Your task to perform on an android device: Open Google Chrome and click the shortcut for Amazon.com Image 0: 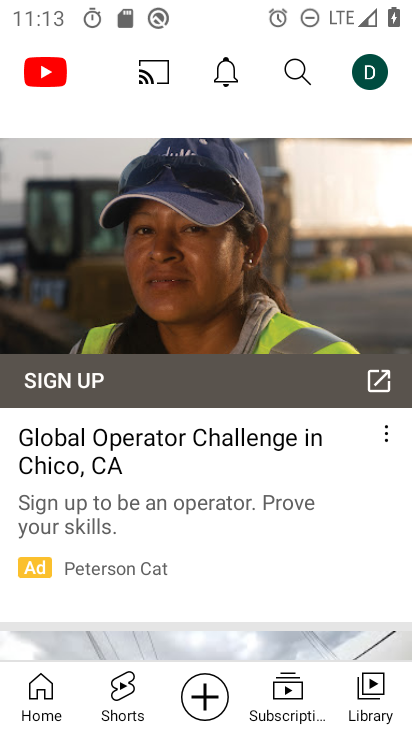
Step 0: press home button
Your task to perform on an android device: Open Google Chrome and click the shortcut for Amazon.com Image 1: 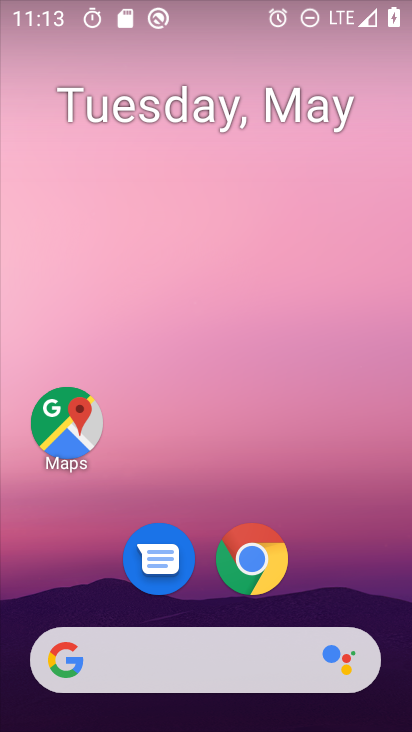
Step 1: click (259, 561)
Your task to perform on an android device: Open Google Chrome and click the shortcut for Amazon.com Image 2: 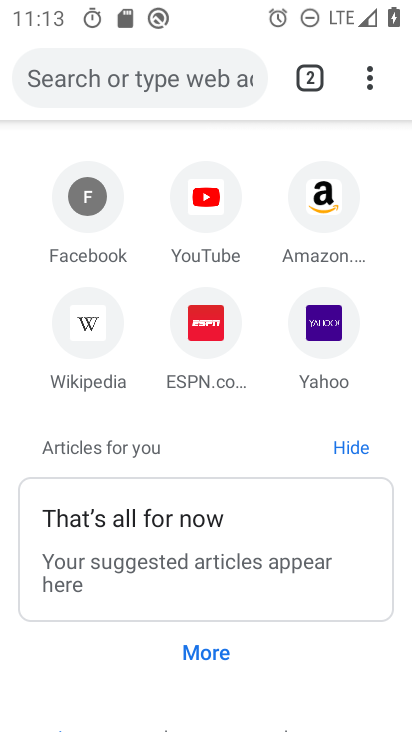
Step 2: click (327, 202)
Your task to perform on an android device: Open Google Chrome and click the shortcut for Amazon.com Image 3: 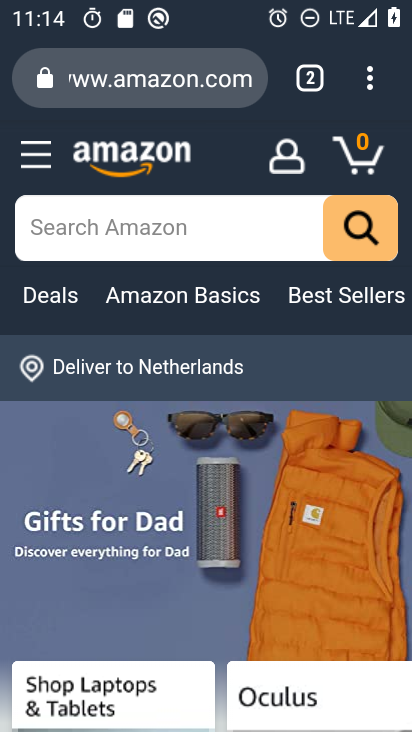
Step 3: task complete